Your task to perform on an android device: turn on data saver in the chrome app Image 0: 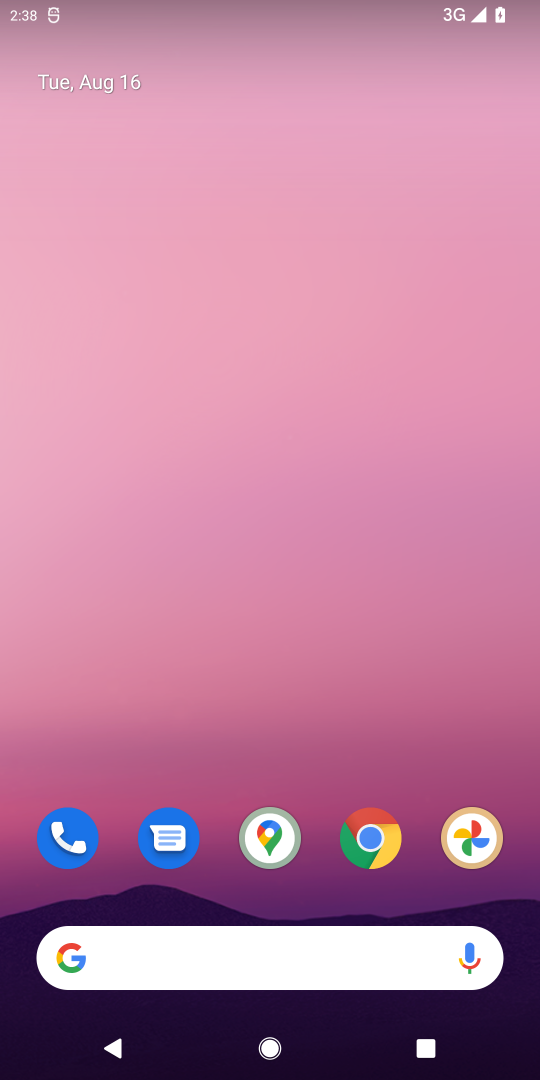
Step 0: press home button
Your task to perform on an android device: turn on data saver in the chrome app Image 1: 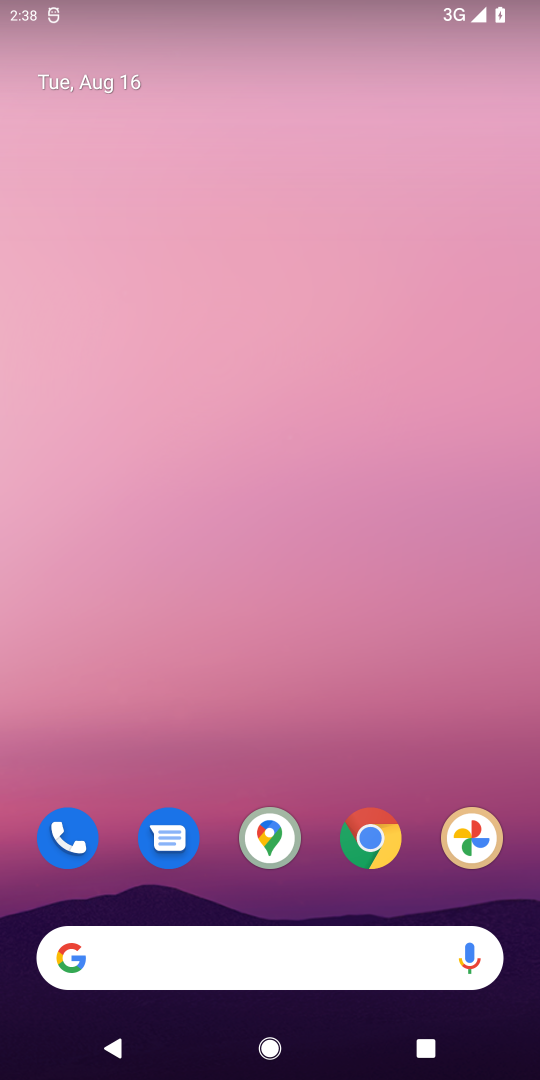
Step 1: click (375, 855)
Your task to perform on an android device: turn on data saver in the chrome app Image 2: 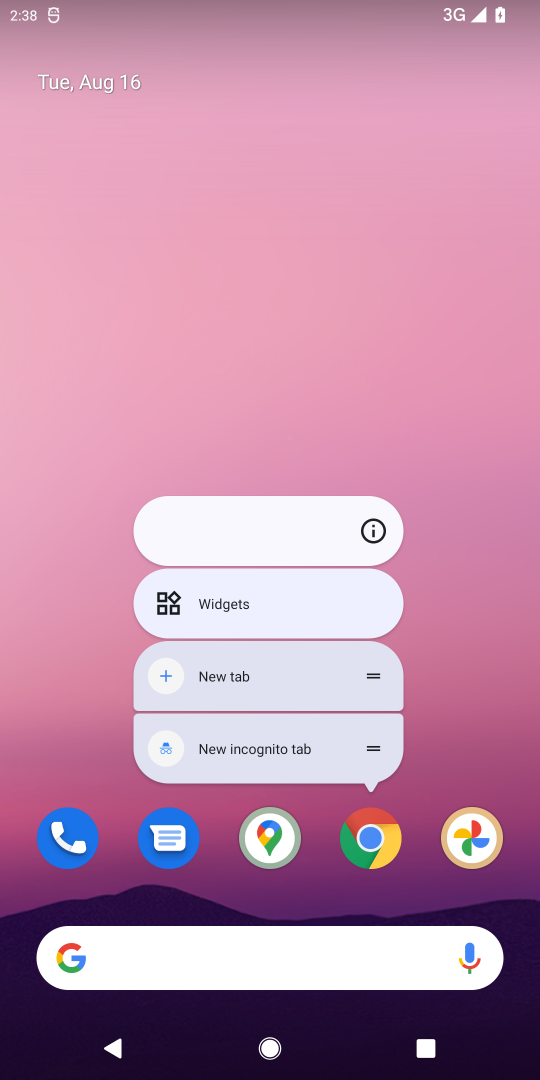
Step 2: click (371, 842)
Your task to perform on an android device: turn on data saver in the chrome app Image 3: 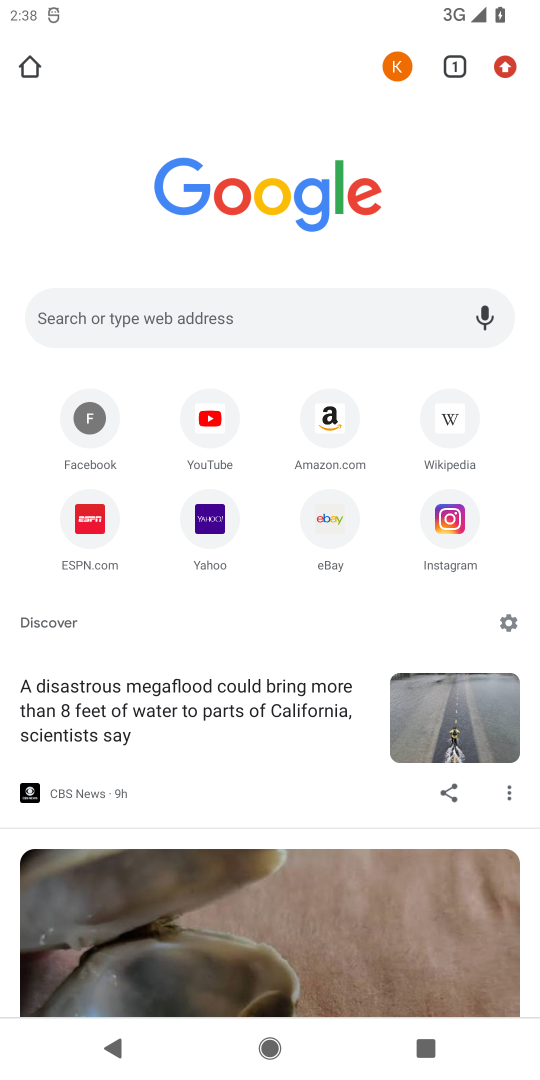
Step 3: drag from (500, 74) to (336, 674)
Your task to perform on an android device: turn on data saver in the chrome app Image 4: 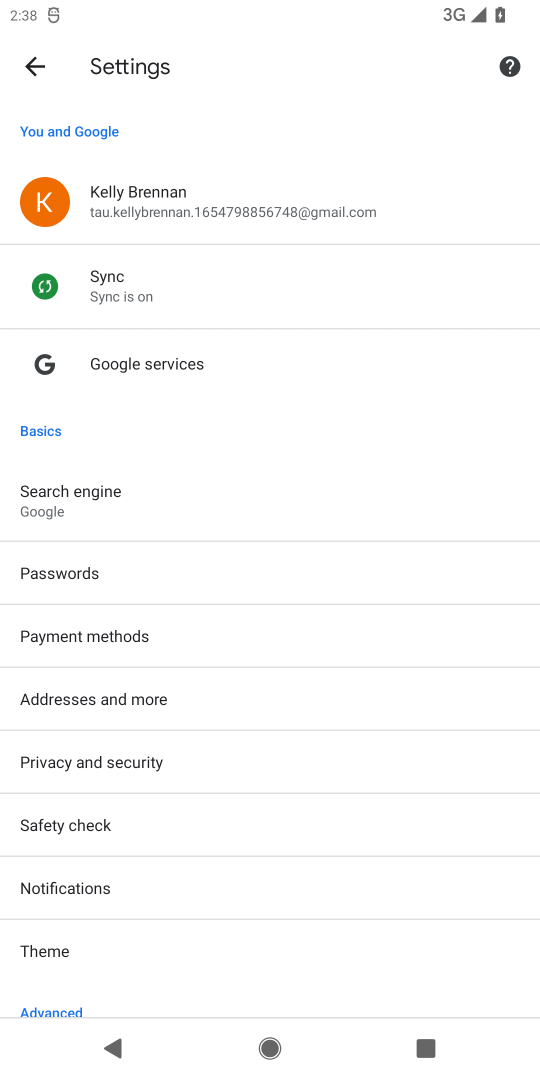
Step 4: drag from (114, 929) to (91, 510)
Your task to perform on an android device: turn on data saver in the chrome app Image 5: 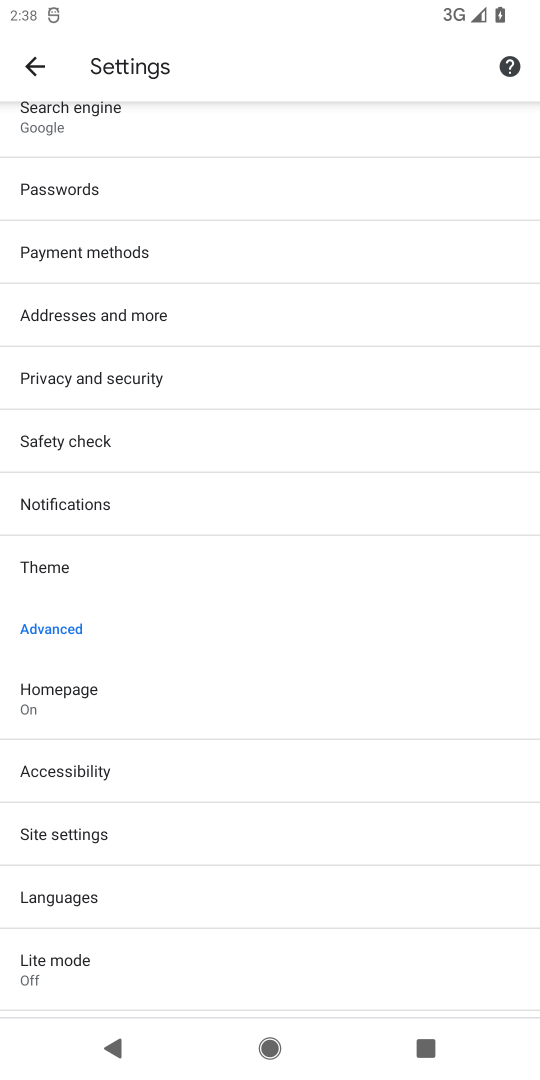
Step 5: click (68, 994)
Your task to perform on an android device: turn on data saver in the chrome app Image 6: 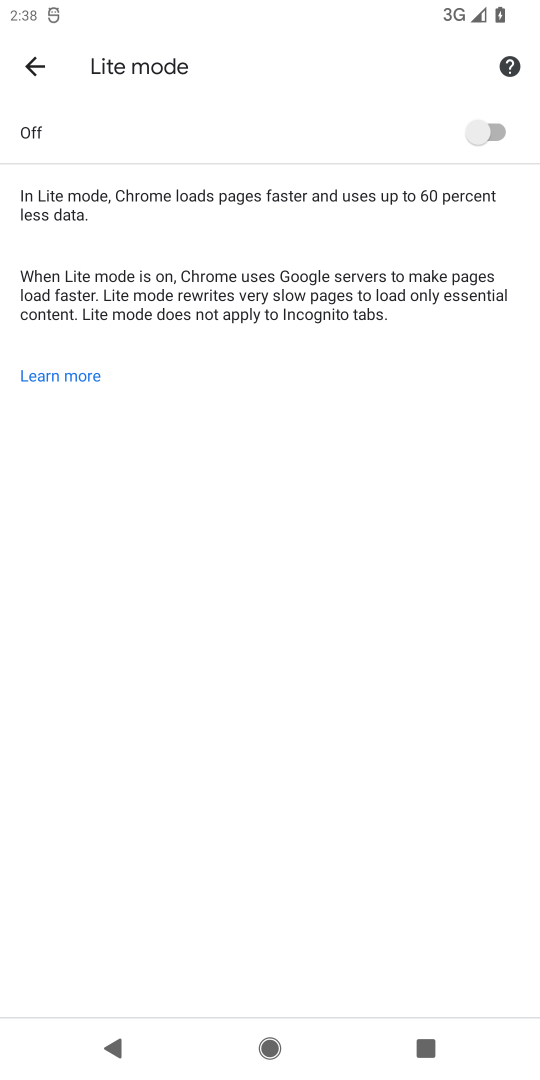
Step 6: click (479, 125)
Your task to perform on an android device: turn on data saver in the chrome app Image 7: 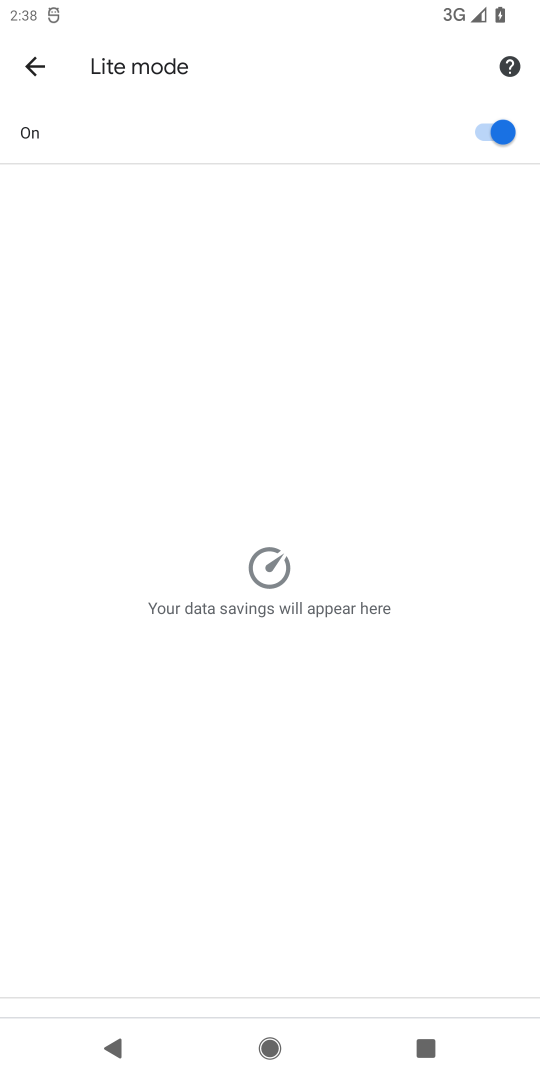
Step 7: task complete